Your task to perform on an android device: turn off priority inbox in the gmail app Image 0: 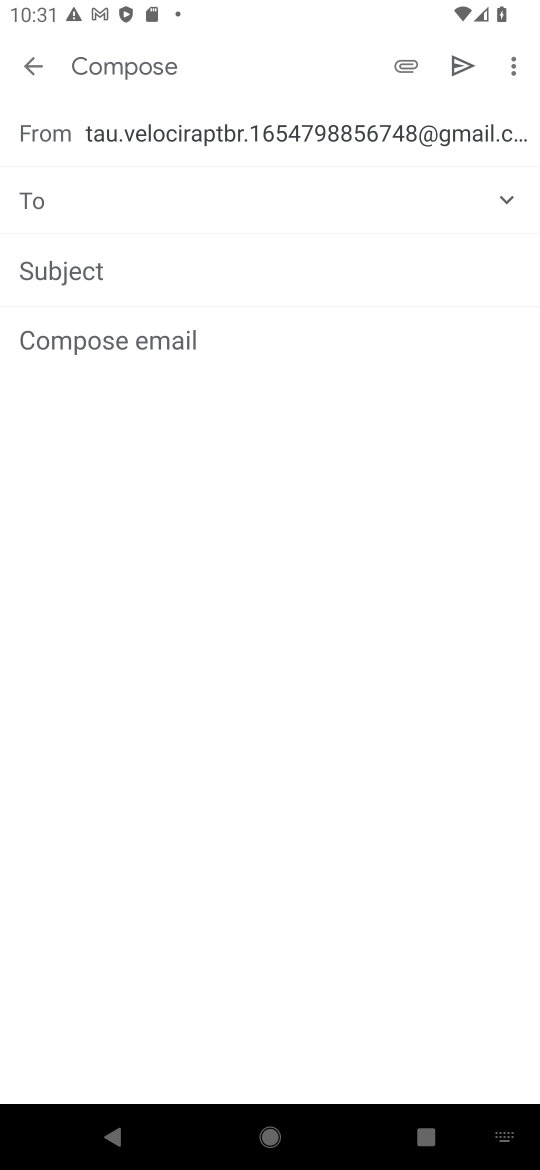
Step 0: press home button
Your task to perform on an android device: turn off priority inbox in the gmail app Image 1: 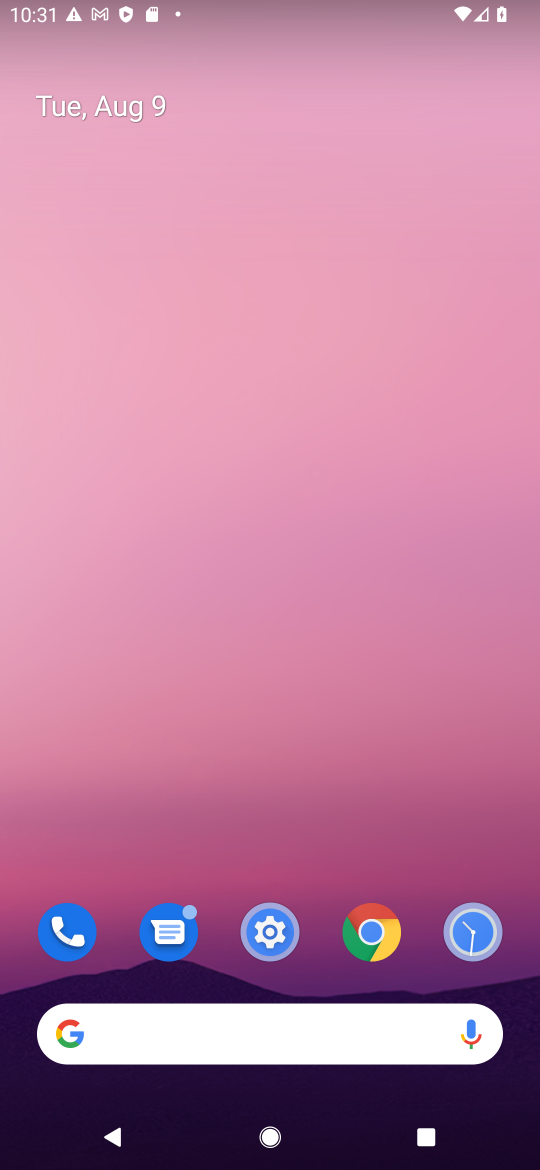
Step 1: drag from (214, 952) to (181, 0)
Your task to perform on an android device: turn off priority inbox in the gmail app Image 2: 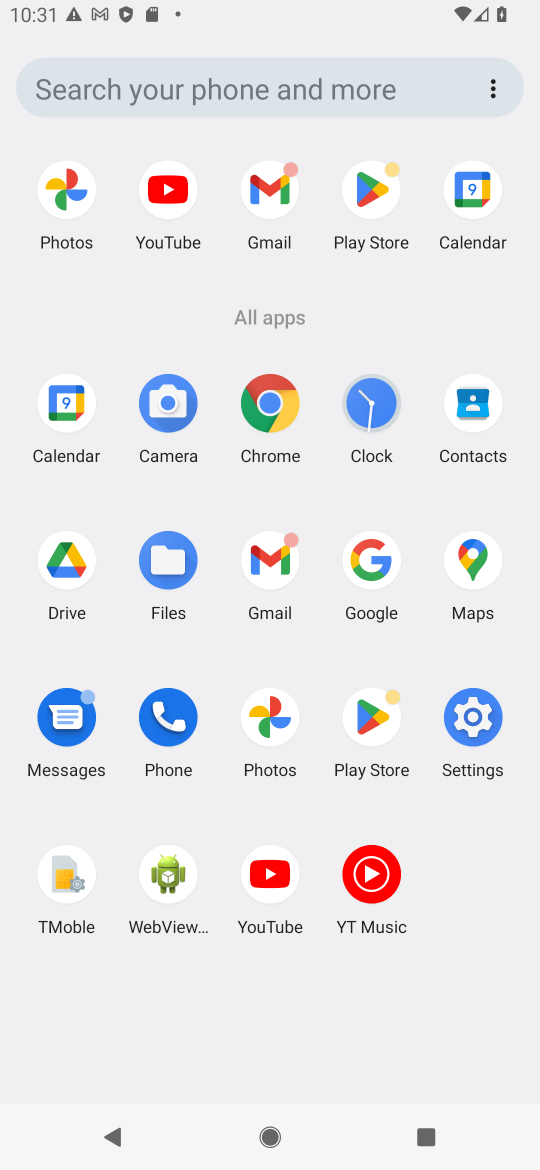
Step 2: click (264, 556)
Your task to perform on an android device: turn off priority inbox in the gmail app Image 3: 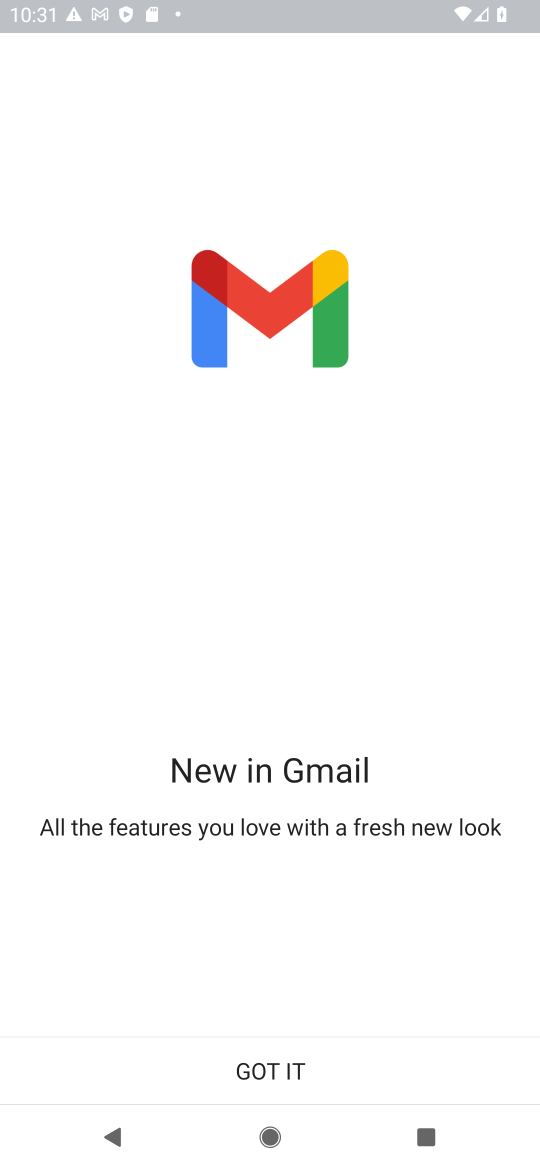
Step 3: click (252, 1072)
Your task to perform on an android device: turn off priority inbox in the gmail app Image 4: 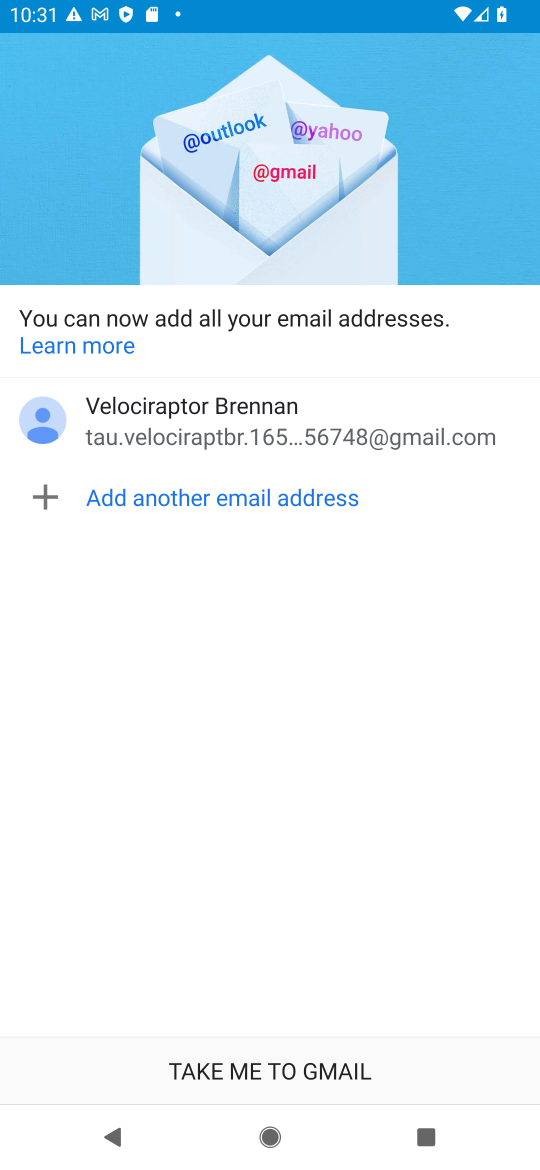
Step 4: click (252, 1072)
Your task to perform on an android device: turn off priority inbox in the gmail app Image 5: 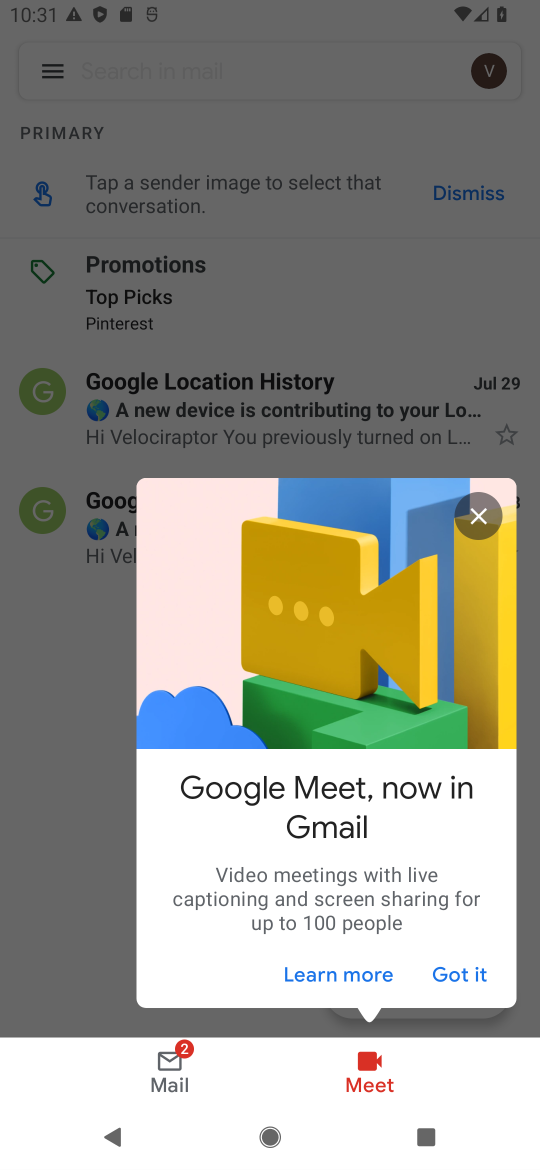
Step 5: click (484, 511)
Your task to perform on an android device: turn off priority inbox in the gmail app Image 6: 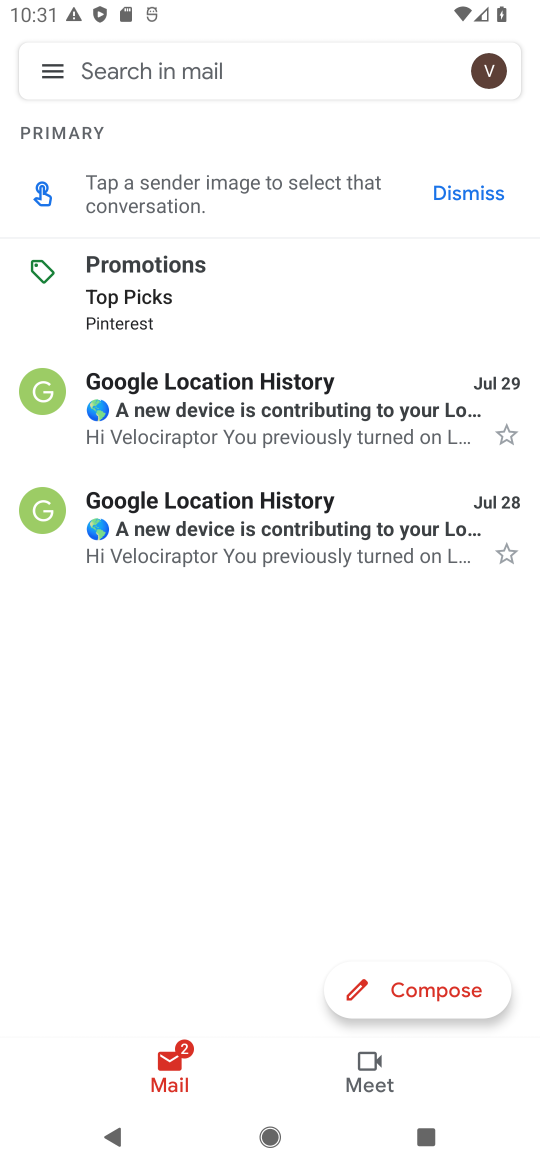
Step 6: click (47, 60)
Your task to perform on an android device: turn off priority inbox in the gmail app Image 7: 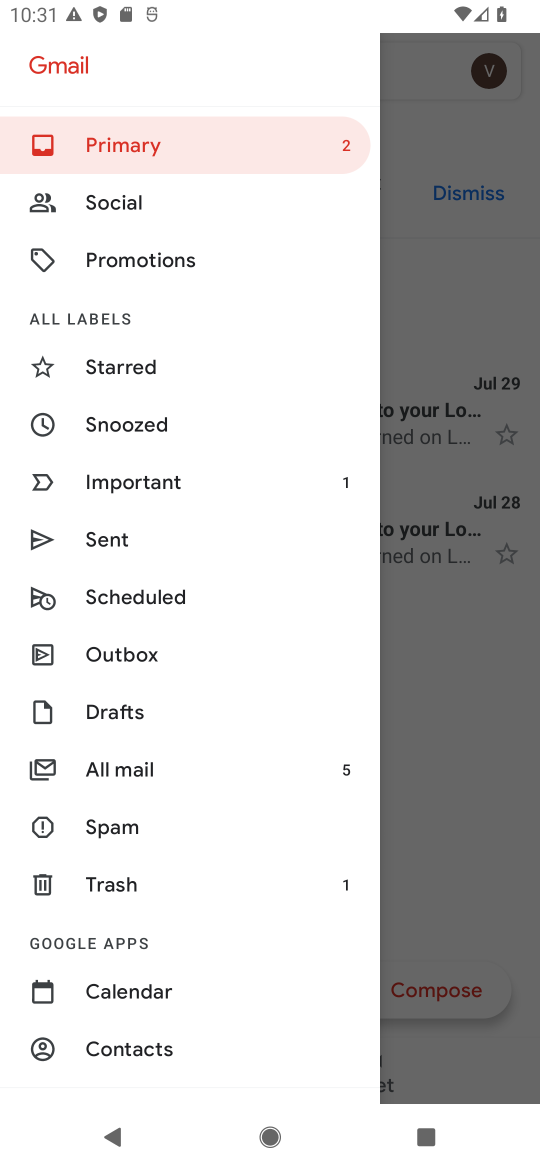
Step 7: drag from (196, 772) to (287, 19)
Your task to perform on an android device: turn off priority inbox in the gmail app Image 8: 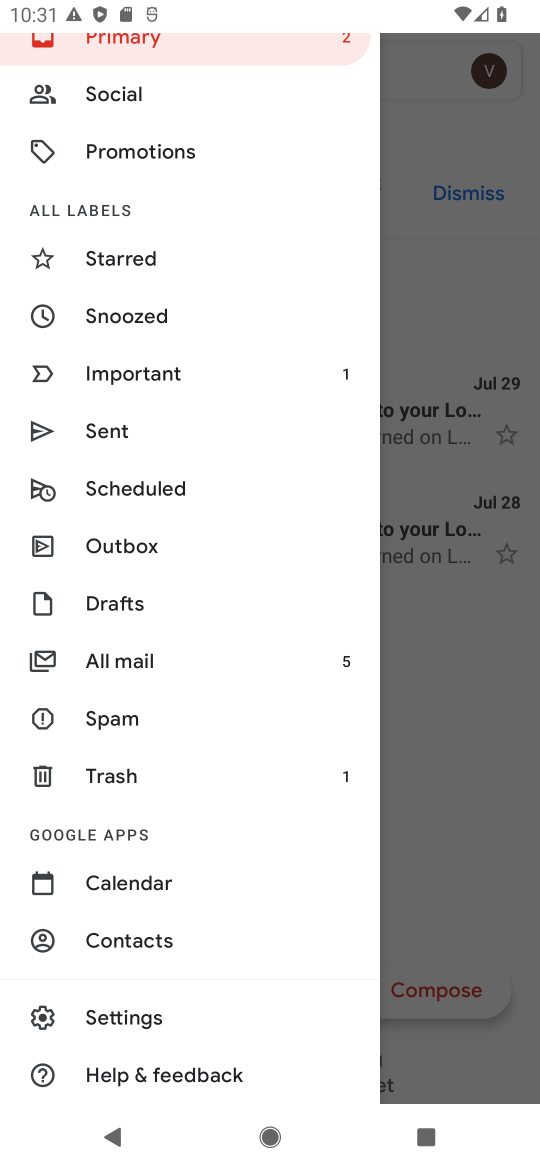
Step 8: click (140, 1021)
Your task to perform on an android device: turn off priority inbox in the gmail app Image 9: 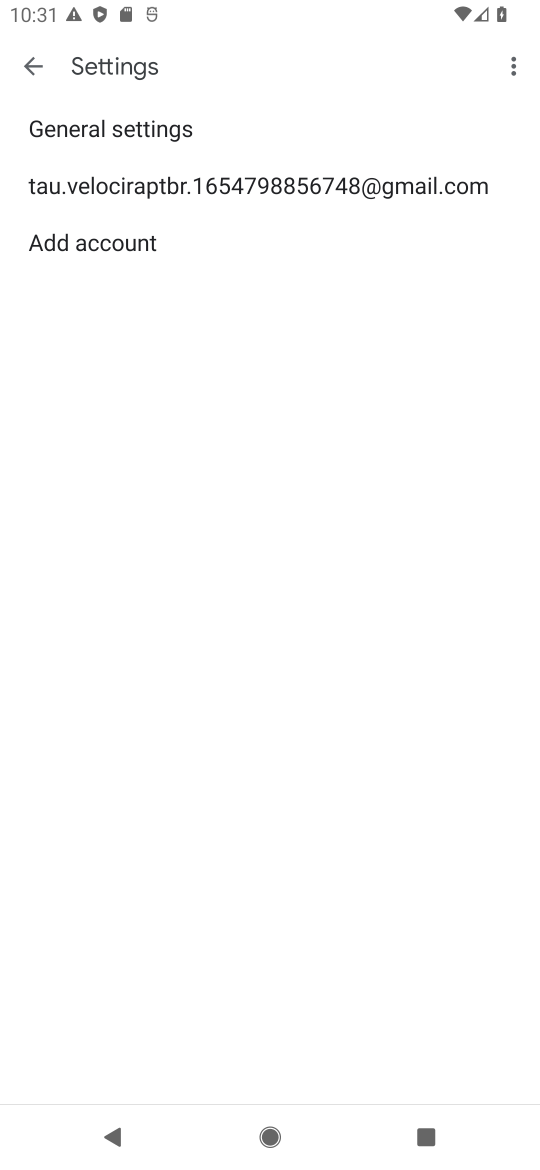
Step 9: click (126, 189)
Your task to perform on an android device: turn off priority inbox in the gmail app Image 10: 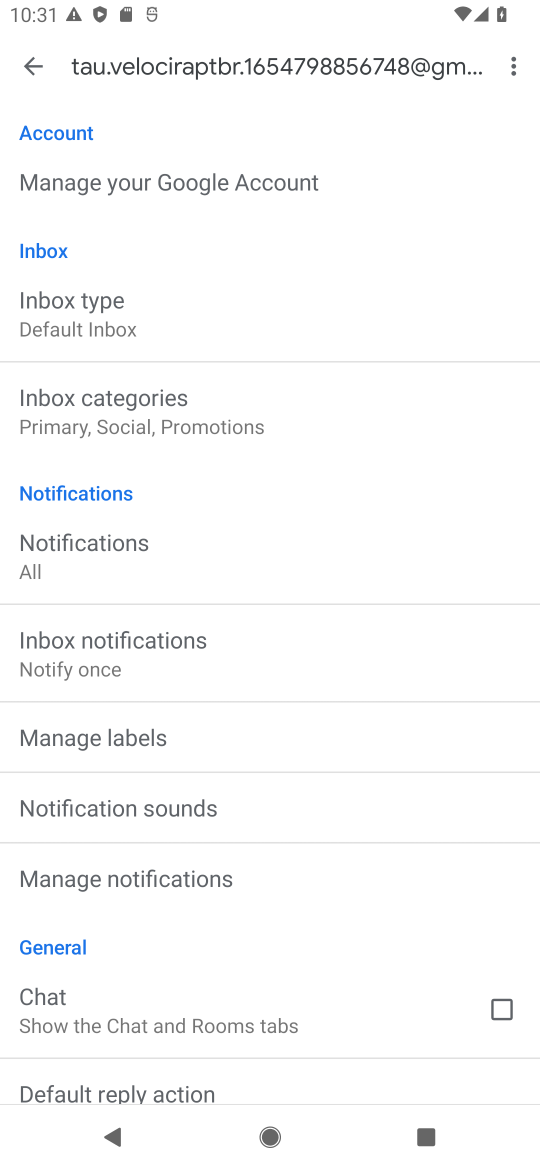
Step 10: click (134, 296)
Your task to perform on an android device: turn off priority inbox in the gmail app Image 11: 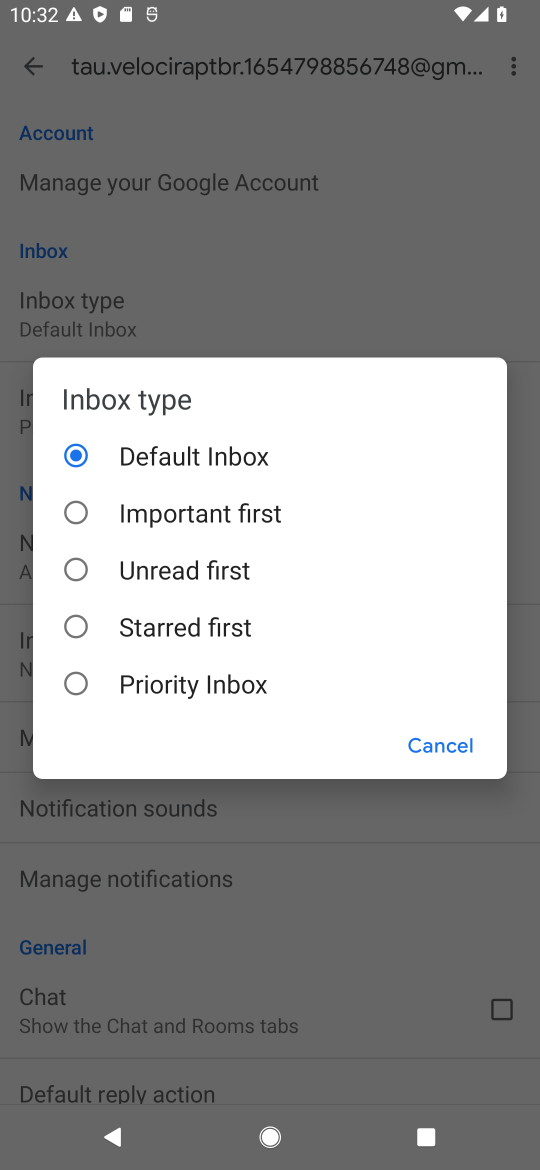
Step 11: task complete